Your task to perform on an android device: set an alarm Image 0: 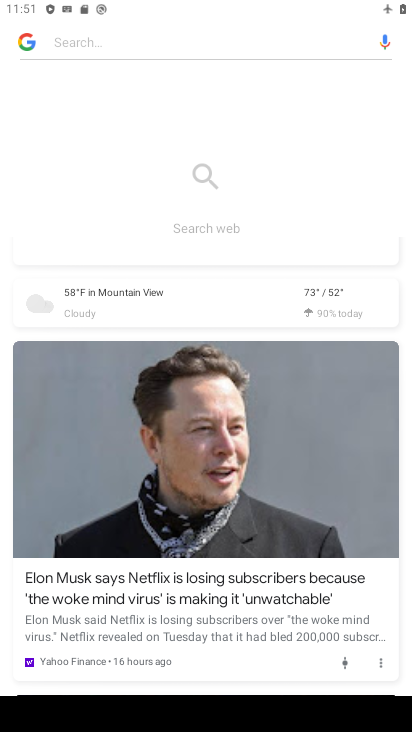
Step 0: press home button
Your task to perform on an android device: set an alarm Image 1: 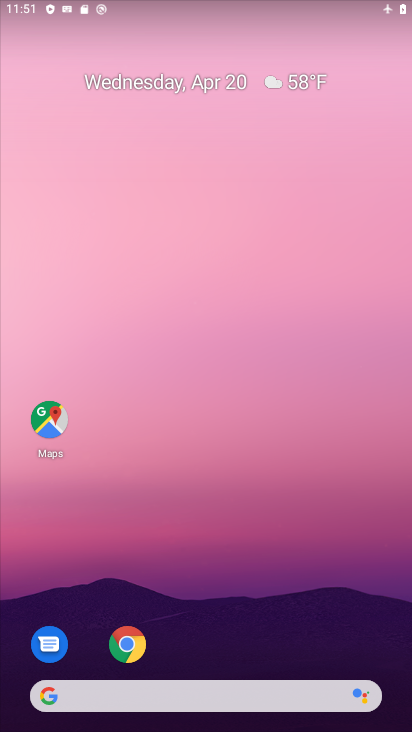
Step 1: drag from (228, 669) to (259, 128)
Your task to perform on an android device: set an alarm Image 2: 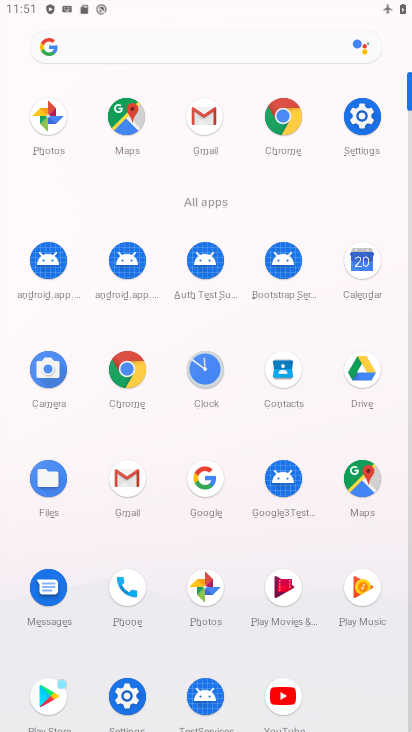
Step 2: click (212, 376)
Your task to perform on an android device: set an alarm Image 3: 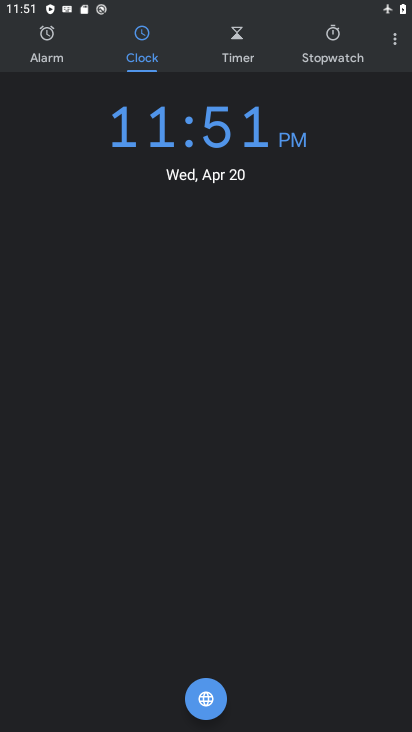
Step 3: click (51, 55)
Your task to perform on an android device: set an alarm Image 4: 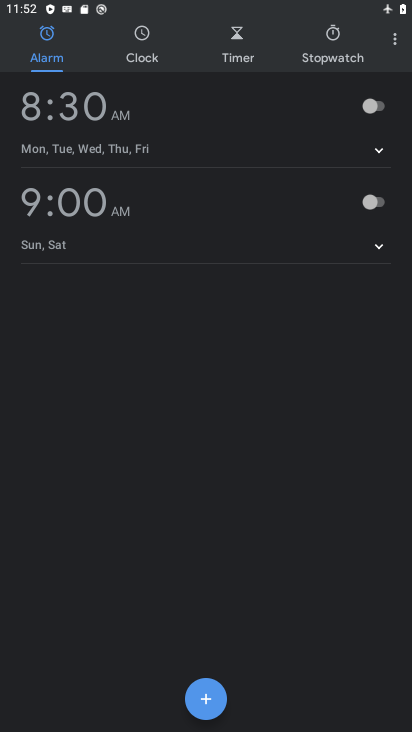
Step 4: task complete